Your task to perform on an android device: open app "Upside-Cash back on gas & food" Image 0: 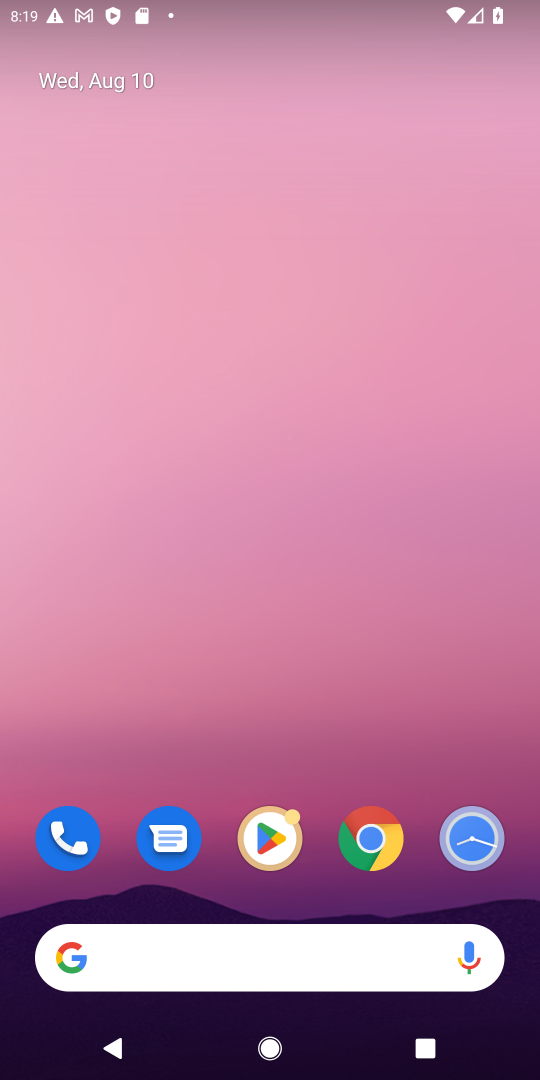
Step 0: click (267, 827)
Your task to perform on an android device: open app "Upside-Cash back on gas & food" Image 1: 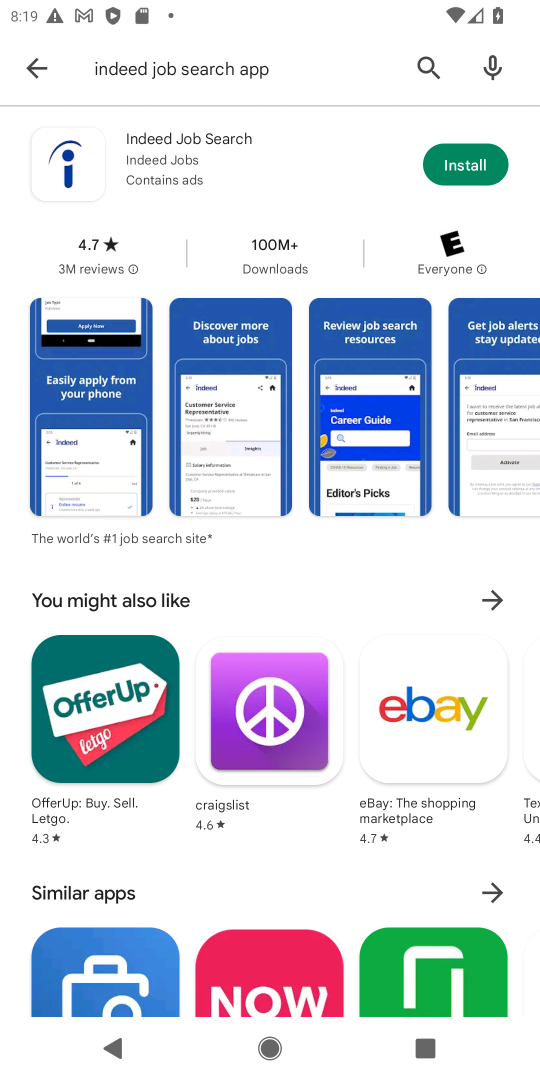
Step 1: click (442, 72)
Your task to perform on an android device: open app "Upside-Cash back on gas & food" Image 2: 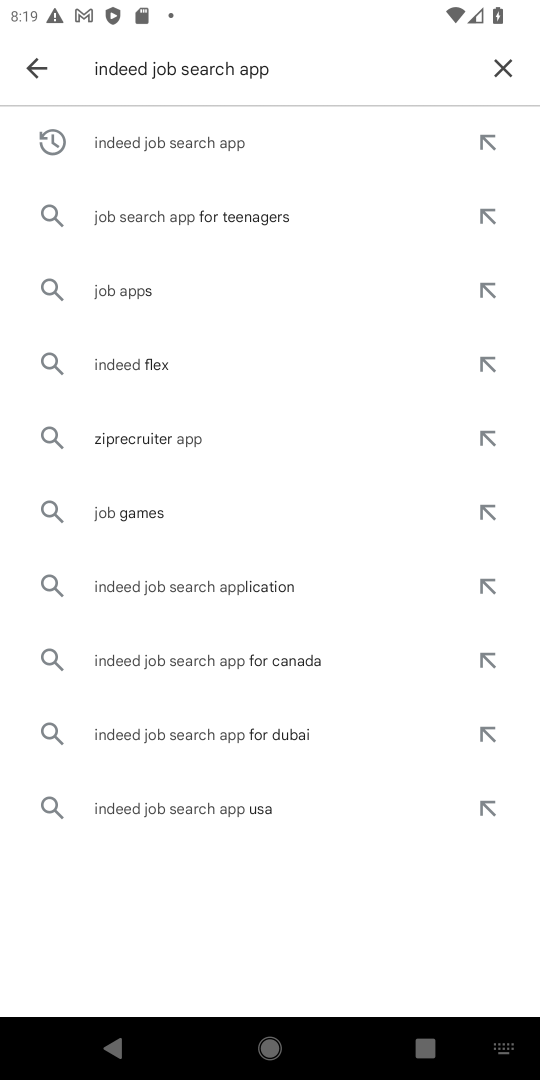
Step 2: click (499, 68)
Your task to perform on an android device: open app "Upside-Cash back on gas & food" Image 3: 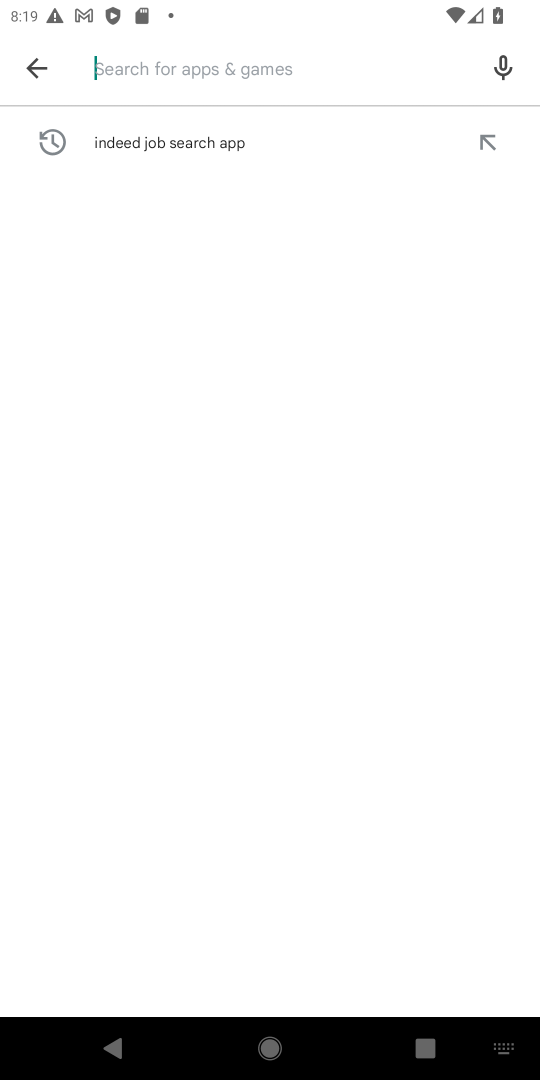
Step 3: type "Upside-Cash back on gas & food"
Your task to perform on an android device: open app "Upside-Cash back on gas & food" Image 4: 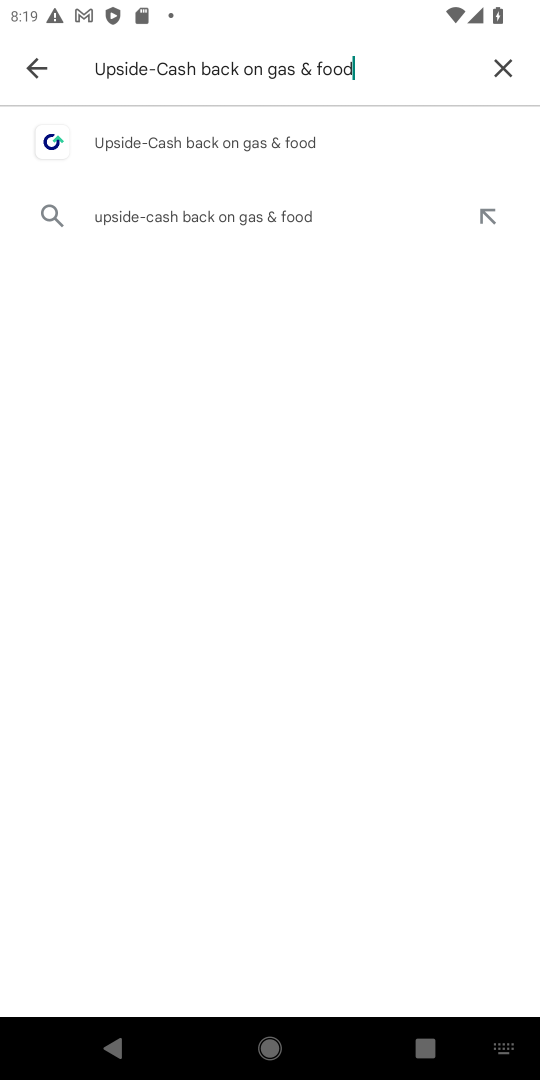
Step 4: click (96, 131)
Your task to perform on an android device: open app "Upside-Cash back on gas & food" Image 5: 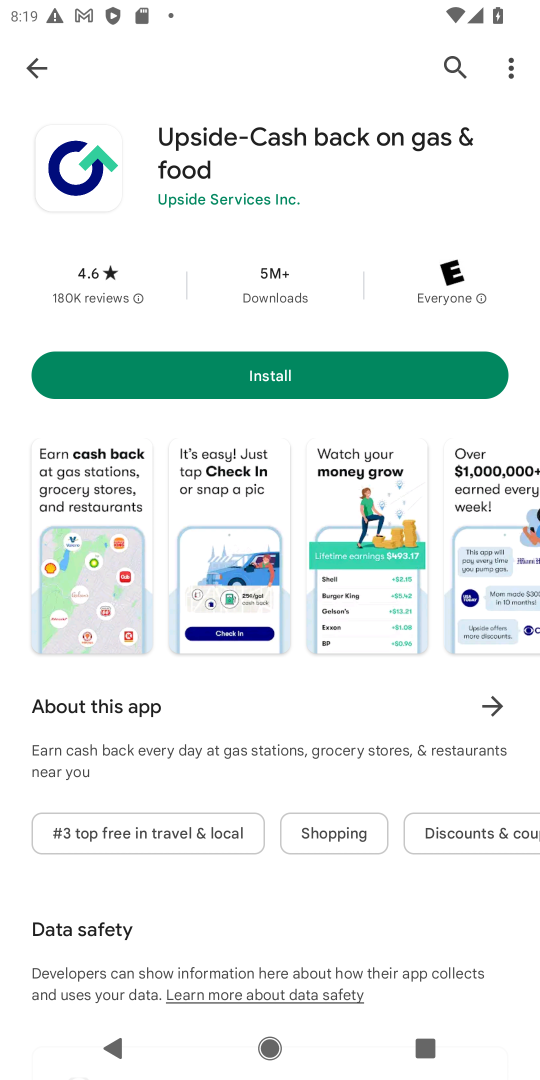
Step 5: task complete